Your task to perform on an android device: When is my next meeting? Image 0: 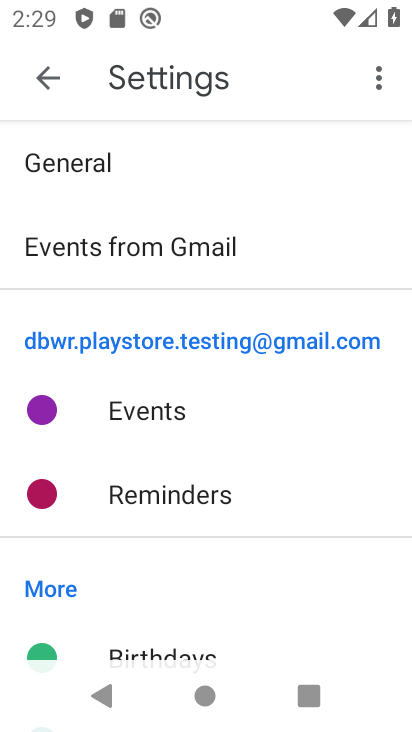
Step 0: press back button
Your task to perform on an android device: When is my next meeting? Image 1: 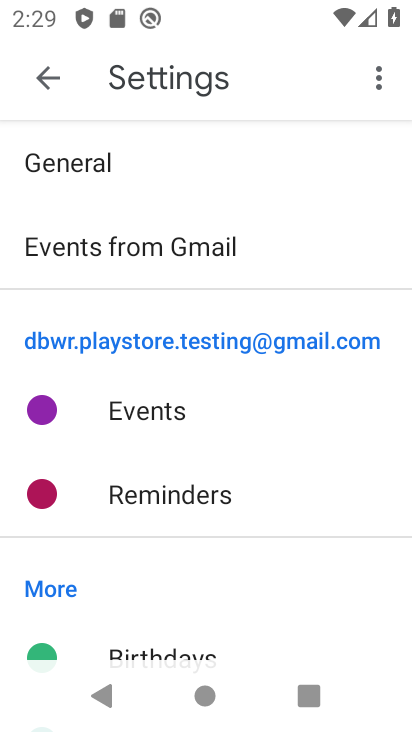
Step 1: press back button
Your task to perform on an android device: When is my next meeting? Image 2: 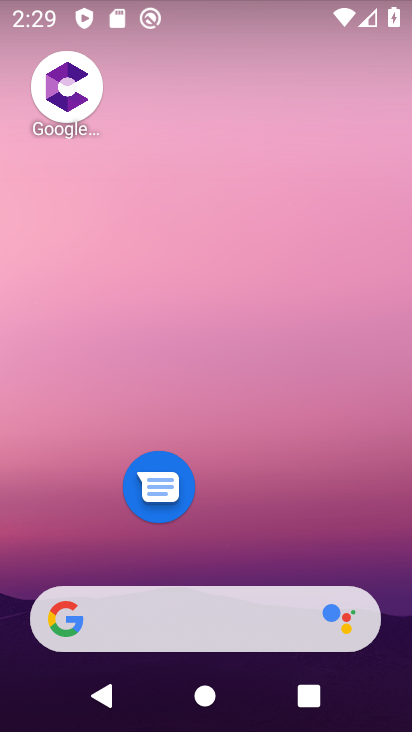
Step 2: drag from (253, 595) to (405, 30)
Your task to perform on an android device: When is my next meeting? Image 3: 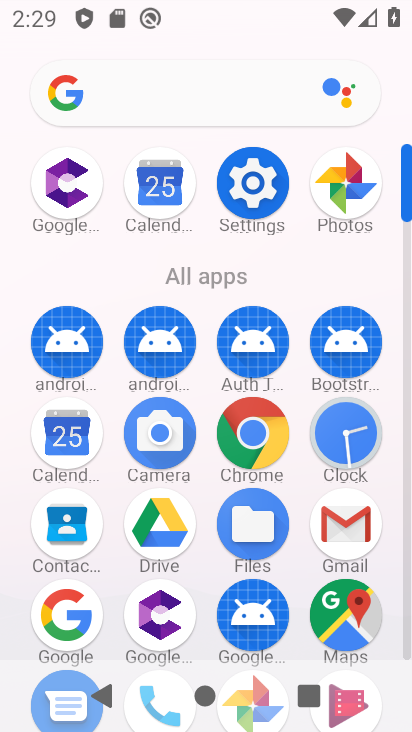
Step 3: click (80, 431)
Your task to perform on an android device: When is my next meeting? Image 4: 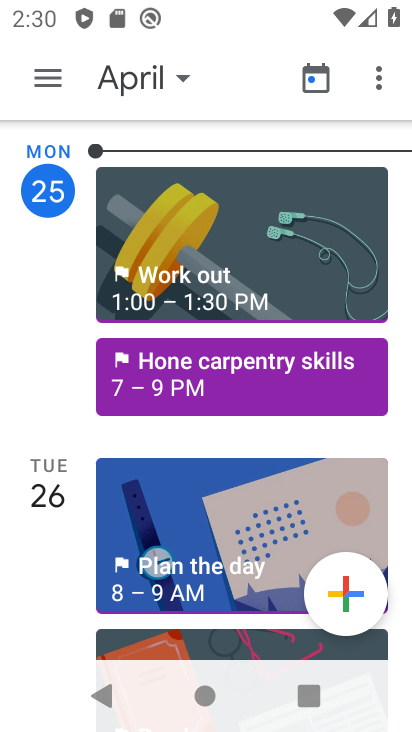
Step 4: click (376, 74)
Your task to perform on an android device: When is my next meeting? Image 5: 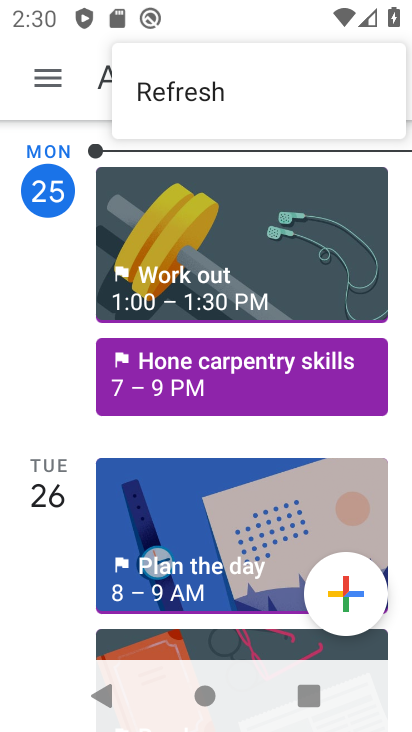
Step 5: click (58, 77)
Your task to perform on an android device: When is my next meeting? Image 6: 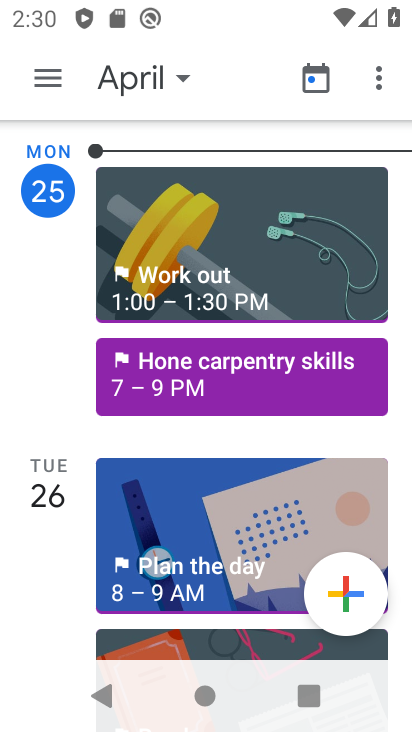
Step 6: click (58, 77)
Your task to perform on an android device: When is my next meeting? Image 7: 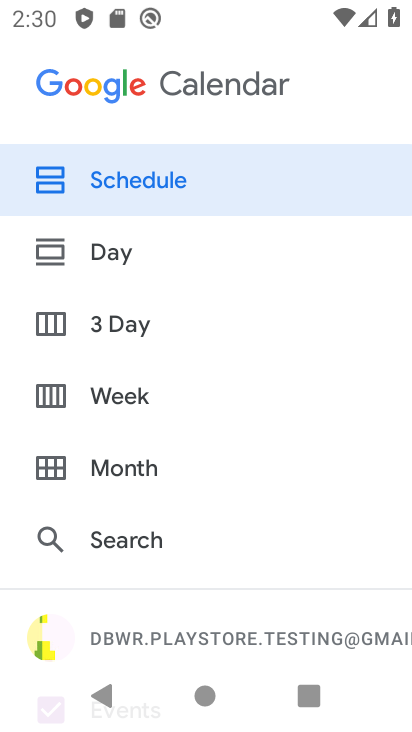
Step 7: drag from (120, 452) to (353, 109)
Your task to perform on an android device: When is my next meeting? Image 8: 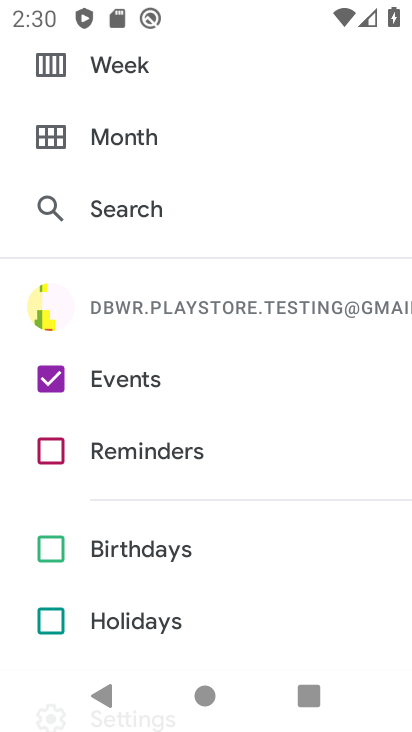
Step 8: drag from (203, 105) to (182, 474)
Your task to perform on an android device: When is my next meeting? Image 9: 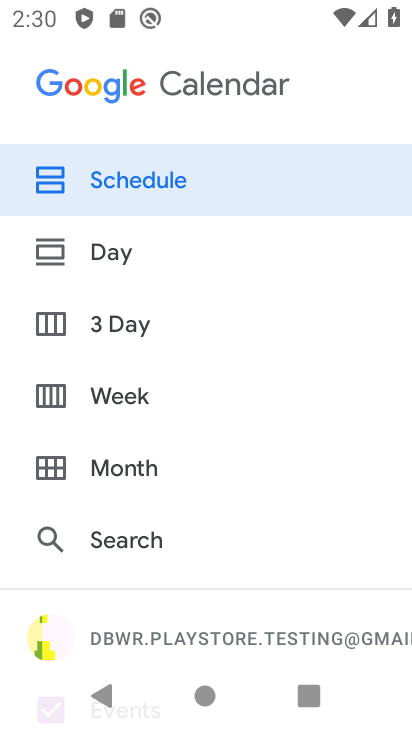
Step 9: click (184, 180)
Your task to perform on an android device: When is my next meeting? Image 10: 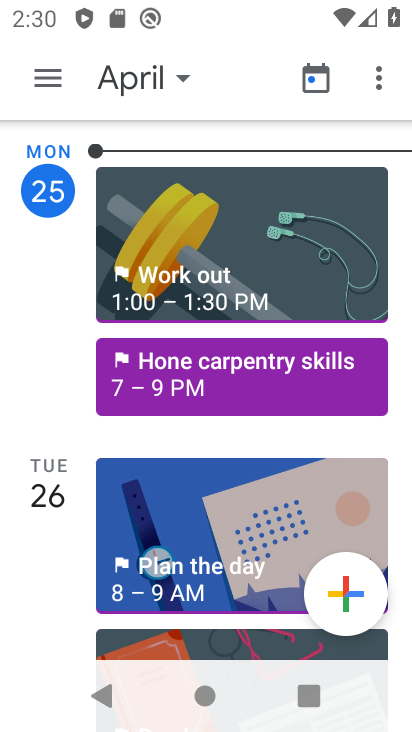
Step 10: task complete